Your task to perform on an android device: Open network settings Image 0: 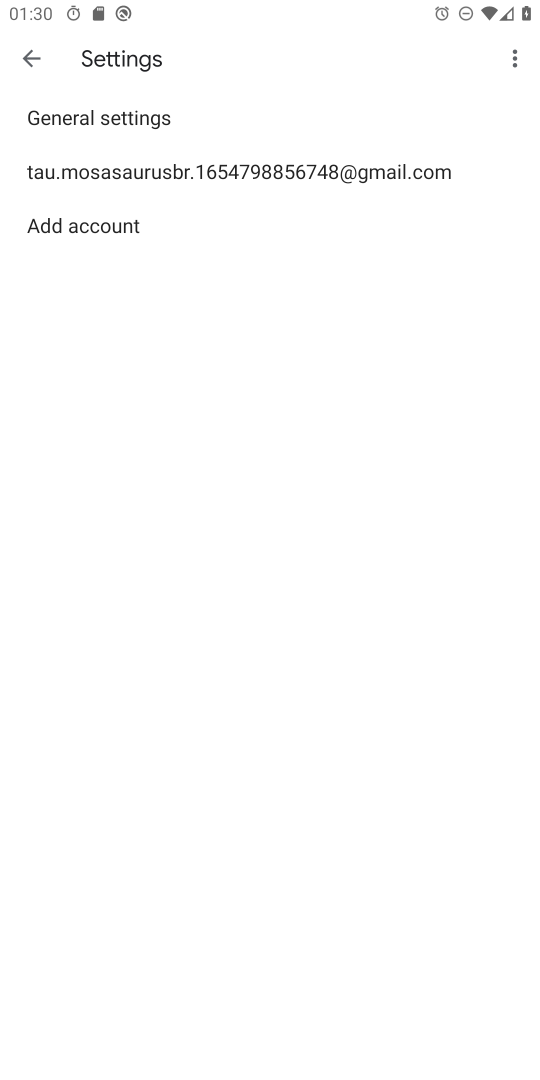
Step 0: click (447, 725)
Your task to perform on an android device: Open network settings Image 1: 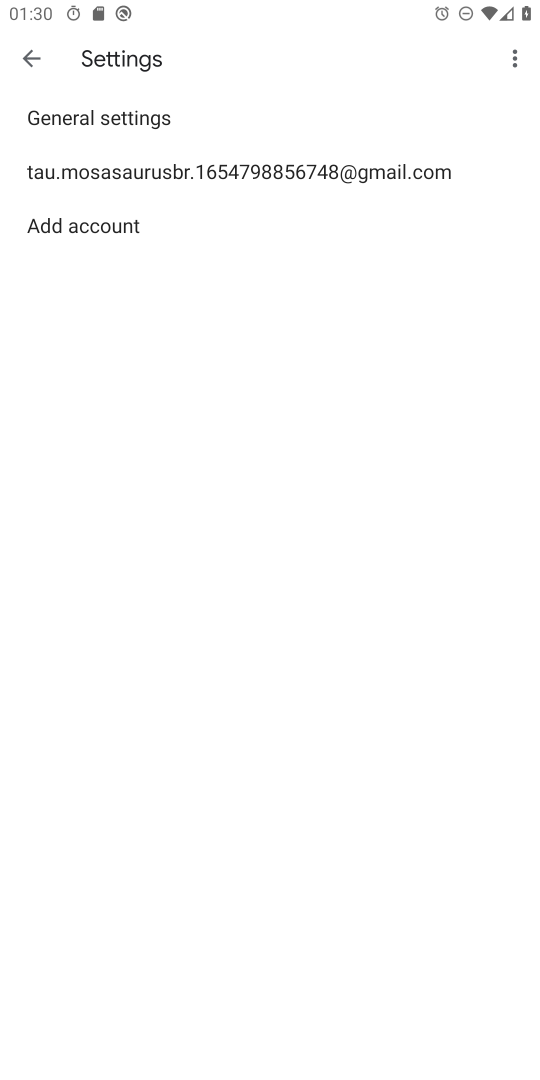
Step 1: drag from (206, 8) to (302, 862)
Your task to perform on an android device: Open network settings Image 2: 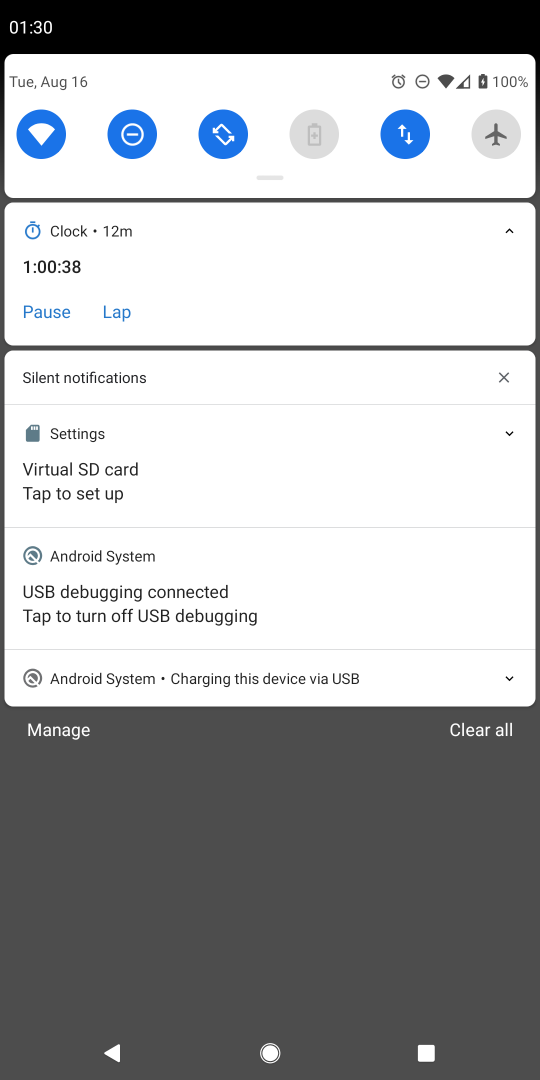
Step 2: click (410, 131)
Your task to perform on an android device: Open network settings Image 3: 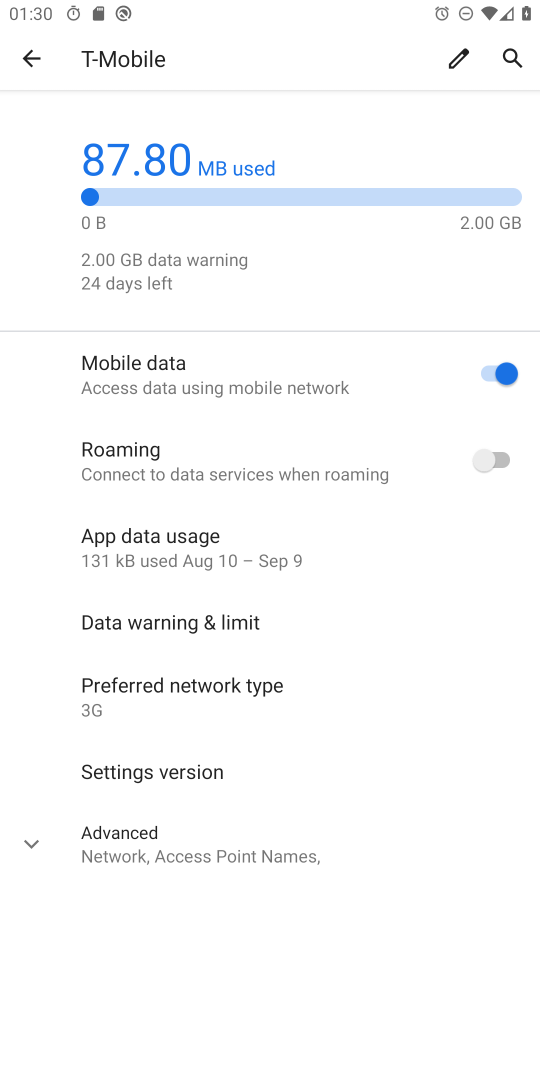
Step 3: task complete